Your task to perform on an android device: Empty the shopping cart on newegg.com. Search for "alienware area 51" on newegg.com, select the first entry, add it to the cart, then select checkout. Image 0: 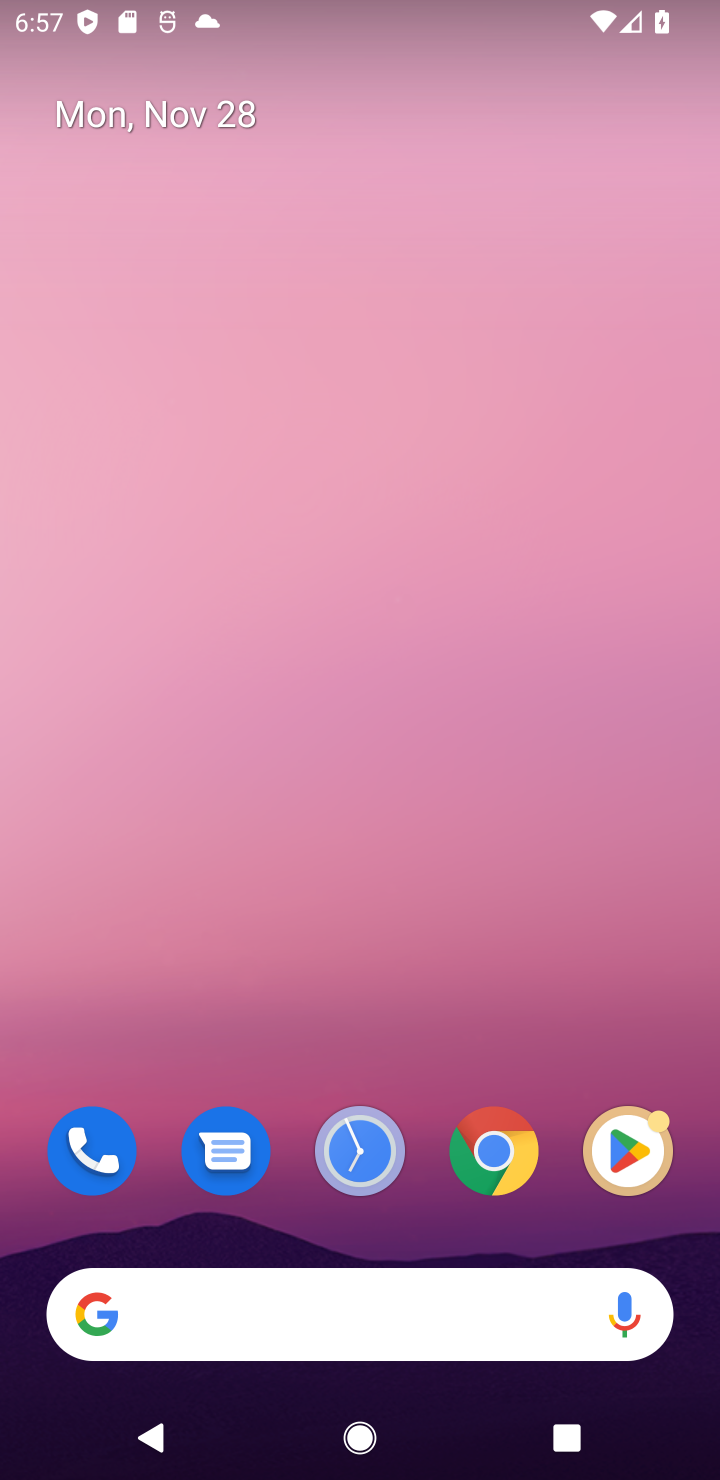
Step 0: click (379, 1299)
Your task to perform on an android device: Empty the shopping cart on newegg.com. Search for "alienware area 51" on newegg.com, select the first entry, add it to the cart, then select checkout. Image 1: 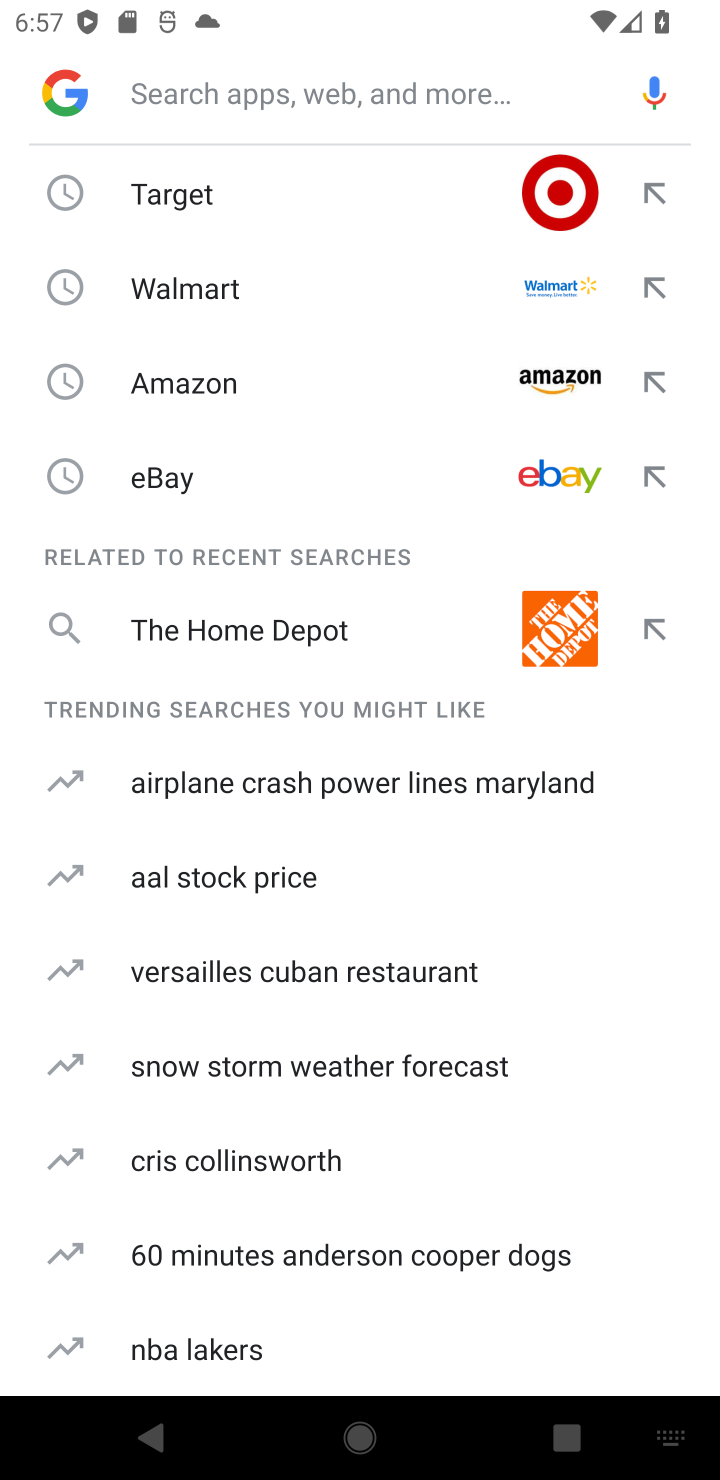
Step 1: type "newegg.com"
Your task to perform on an android device: Empty the shopping cart on newegg.com. Search for "alienware area 51" on newegg.com, select the first entry, add it to the cart, then select checkout. Image 2: 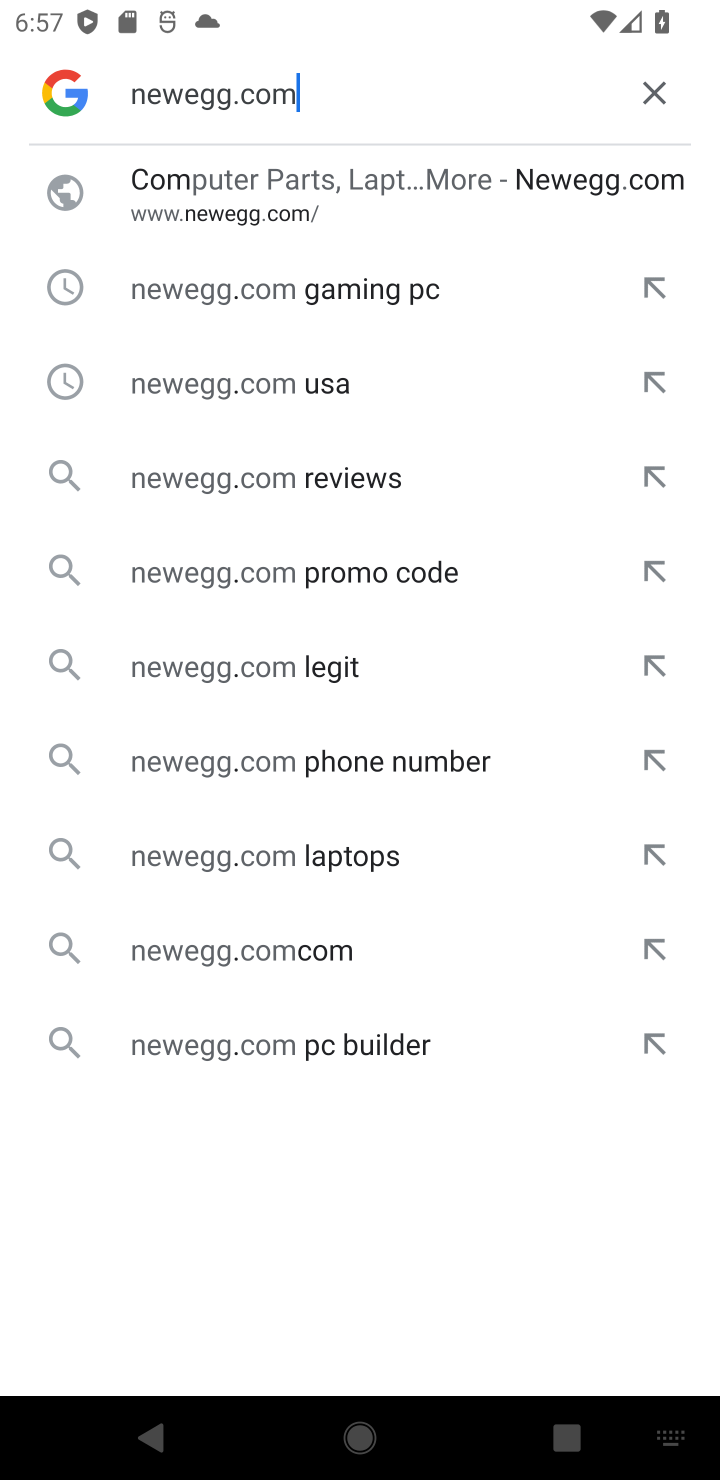
Step 2: click (234, 219)
Your task to perform on an android device: Empty the shopping cart on newegg.com. Search for "alienware area 51" on newegg.com, select the first entry, add it to the cart, then select checkout. Image 3: 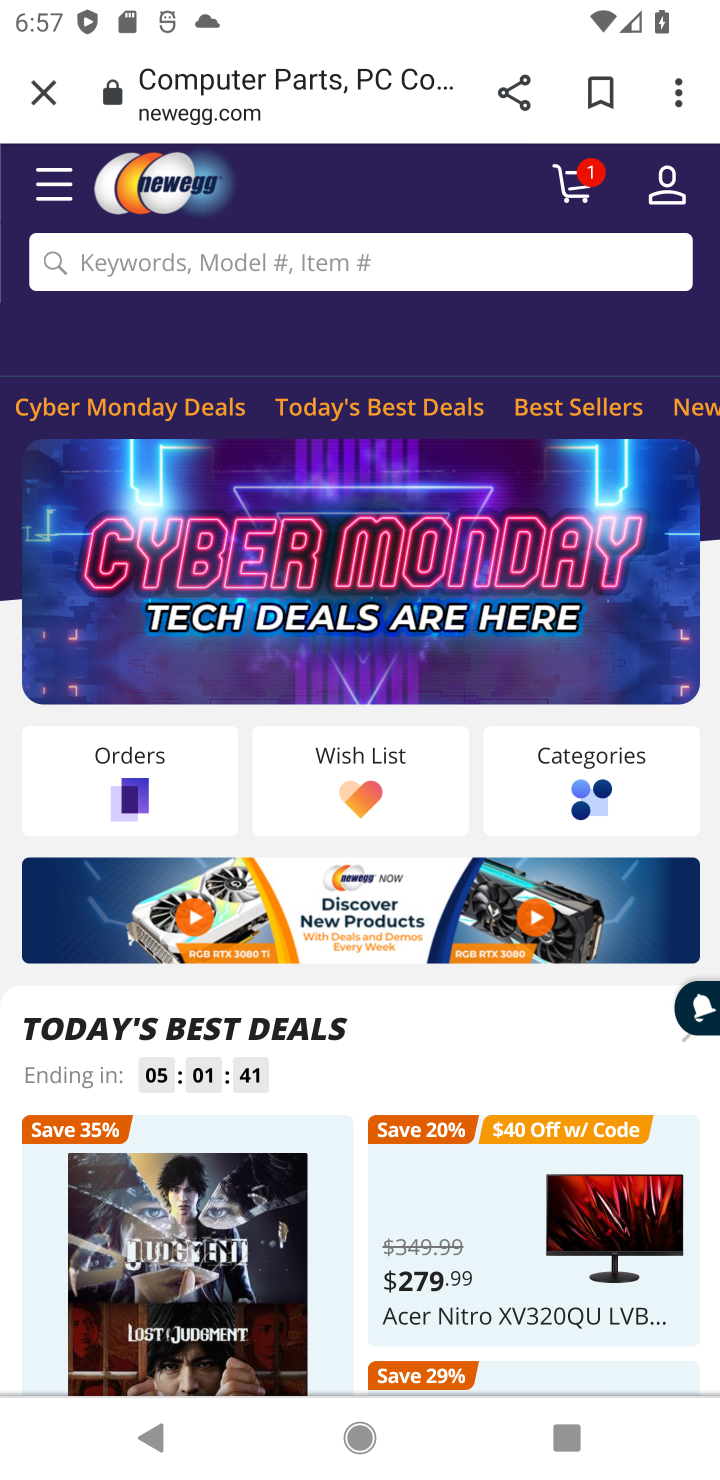
Step 3: click (245, 271)
Your task to perform on an android device: Empty the shopping cart on newegg.com. Search for "alienware area 51" on newegg.com, select the first entry, add it to the cart, then select checkout. Image 4: 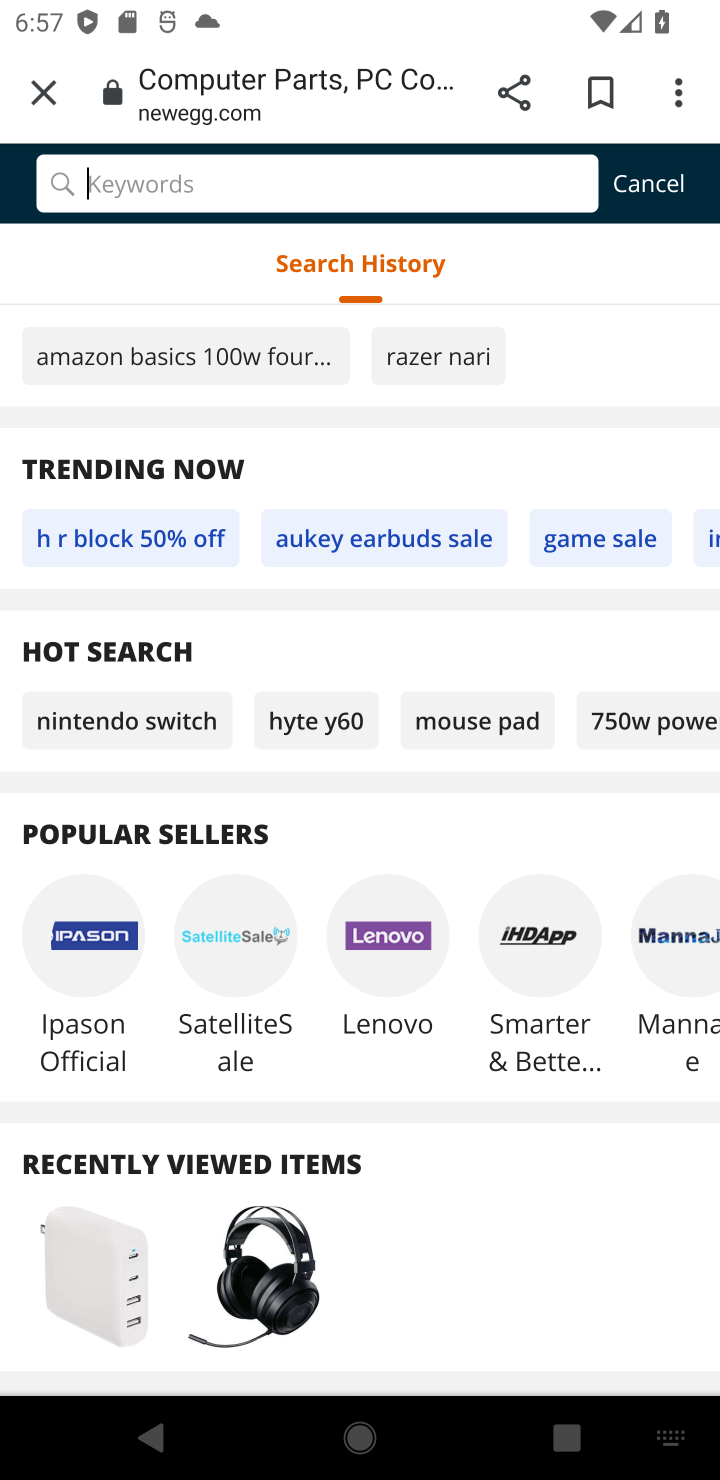
Step 4: type "alienware area 51"
Your task to perform on an android device: Empty the shopping cart on newegg.com. Search for "alienware area 51" on newegg.com, select the first entry, add it to the cart, then select checkout. Image 5: 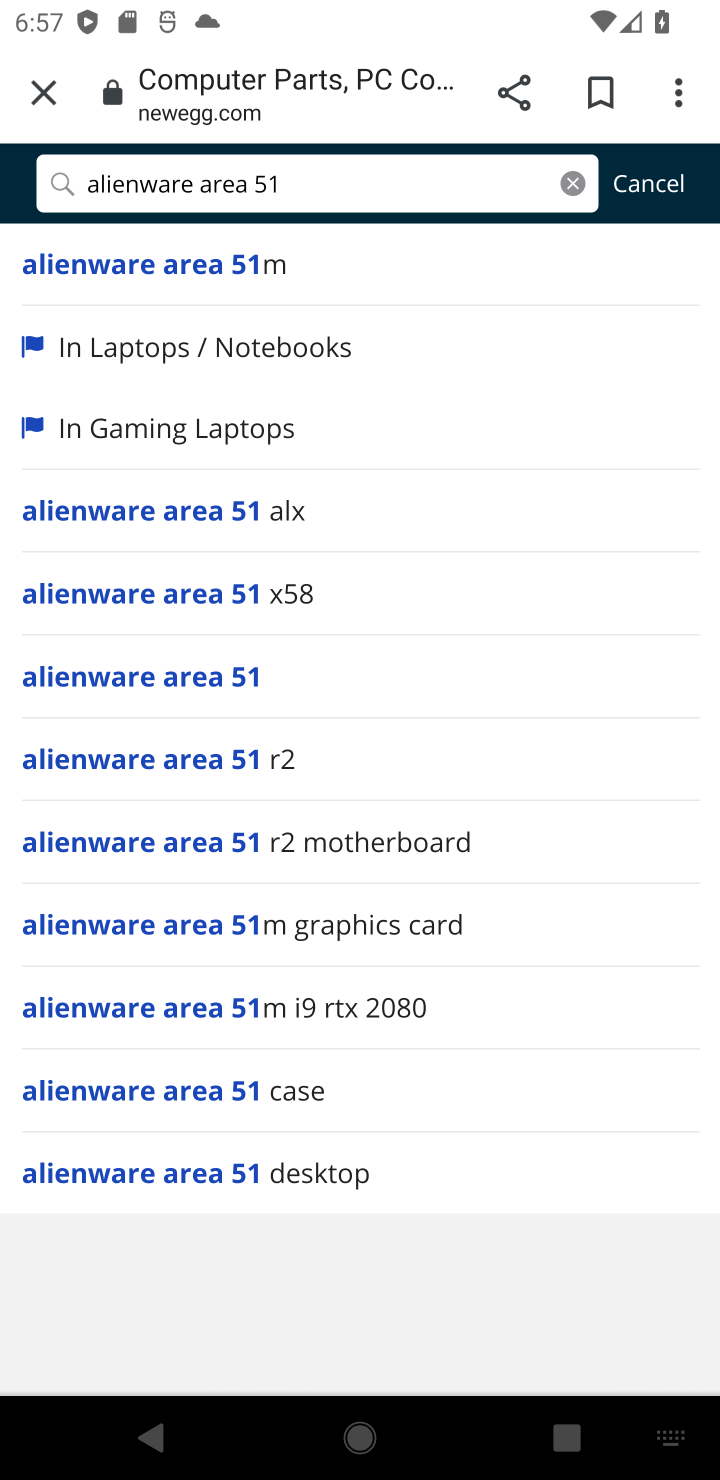
Step 5: click (216, 285)
Your task to perform on an android device: Empty the shopping cart on newegg.com. Search for "alienware area 51" on newegg.com, select the first entry, add it to the cart, then select checkout. Image 6: 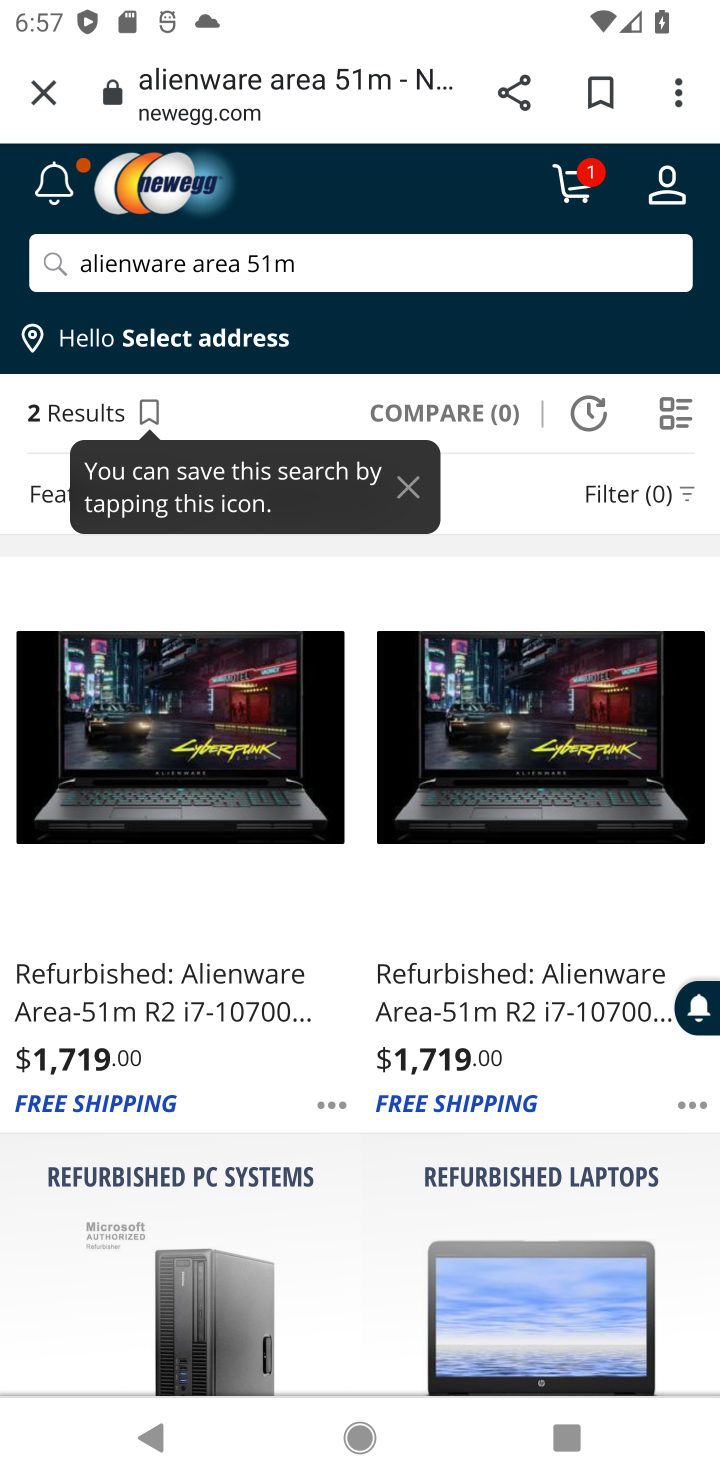
Step 6: click (91, 1020)
Your task to perform on an android device: Empty the shopping cart on newegg.com. Search for "alienware area 51" on newegg.com, select the first entry, add it to the cart, then select checkout. Image 7: 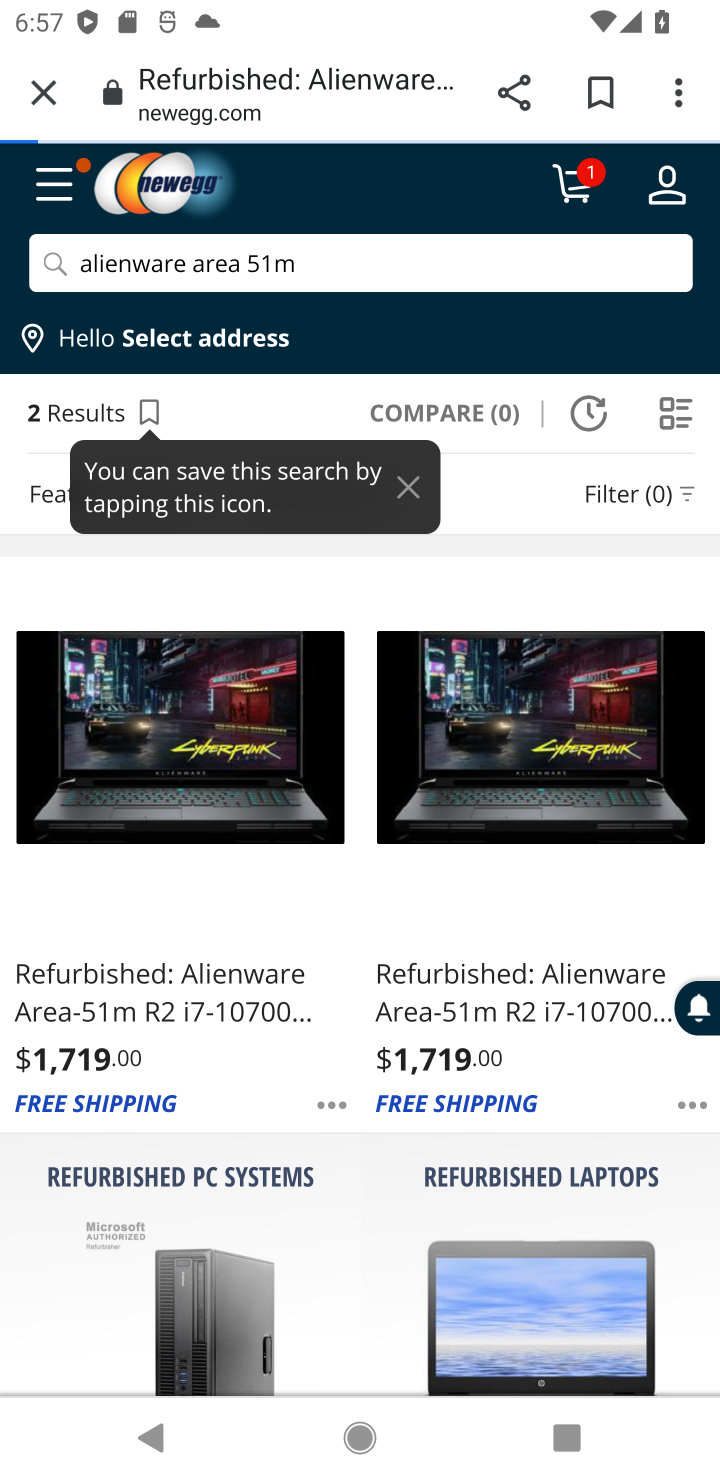
Step 7: click (91, 1020)
Your task to perform on an android device: Empty the shopping cart on newegg.com. Search for "alienware area 51" on newegg.com, select the first entry, add it to the cart, then select checkout. Image 8: 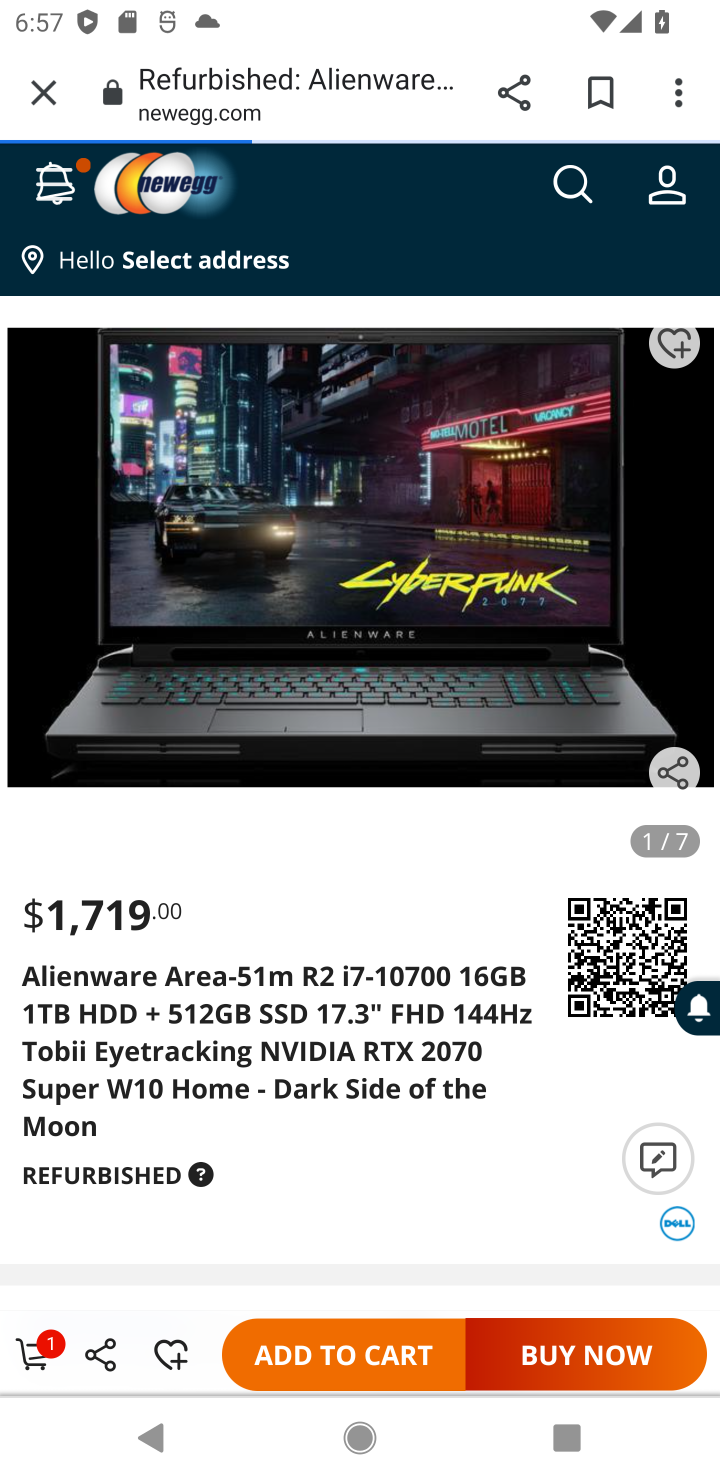
Step 8: click (342, 1376)
Your task to perform on an android device: Empty the shopping cart on newegg.com. Search for "alienware area 51" on newegg.com, select the first entry, add it to the cart, then select checkout. Image 9: 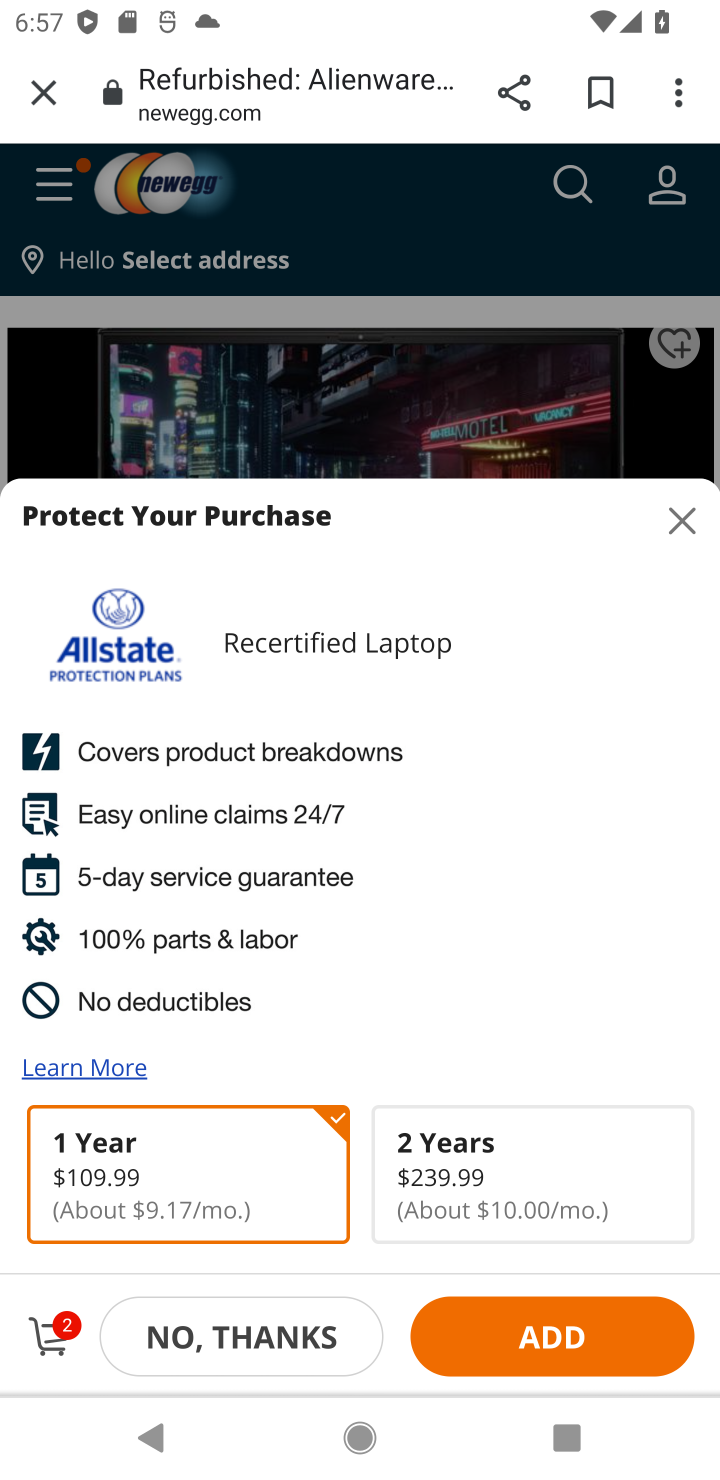
Step 9: task complete